Your task to perform on an android device: Show me popular games on the Play Store Image 0: 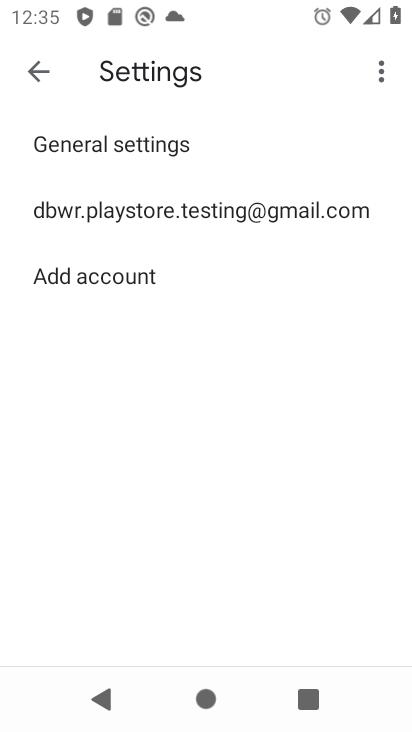
Step 0: press home button
Your task to perform on an android device: Show me popular games on the Play Store Image 1: 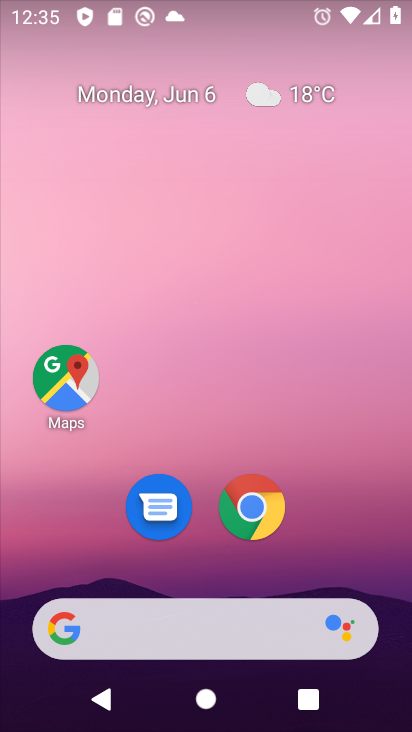
Step 1: drag from (211, 572) to (239, 29)
Your task to perform on an android device: Show me popular games on the Play Store Image 2: 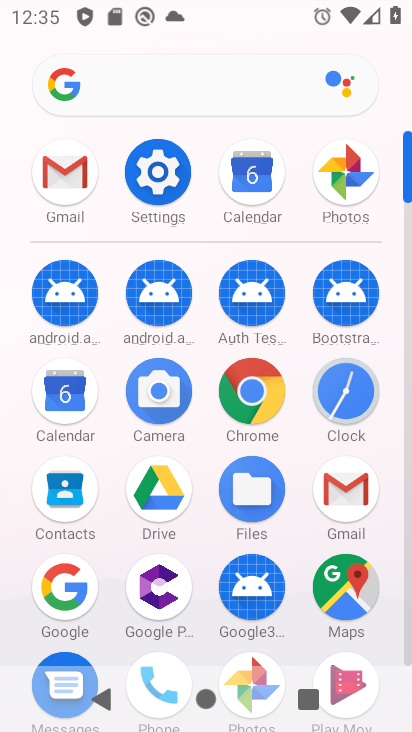
Step 2: drag from (196, 576) to (245, 265)
Your task to perform on an android device: Show me popular games on the Play Store Image 3: 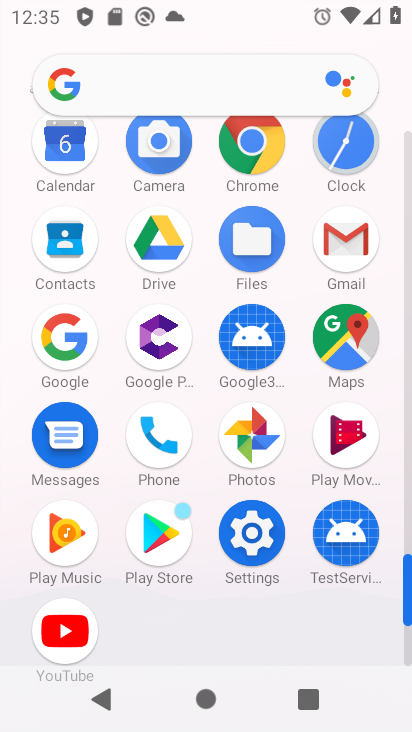
Step 3: click (162, 626)
Your task to perform on an android device: Show me popular games on the Play Store Image 4: 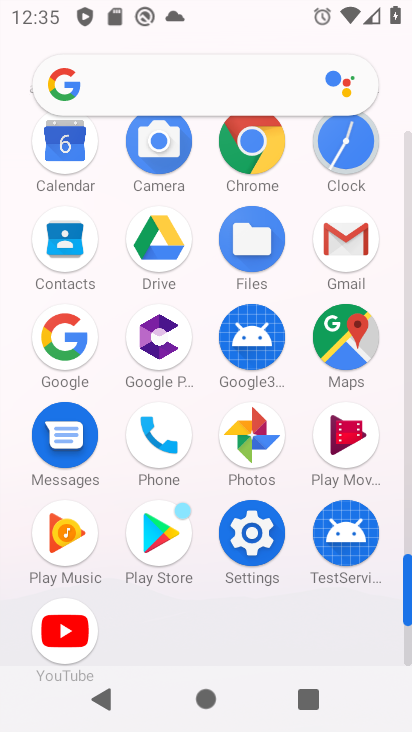
Step 4: click (166, 568)
Your task to perform on an android device: Show me popular games on the Play Store Image 5: 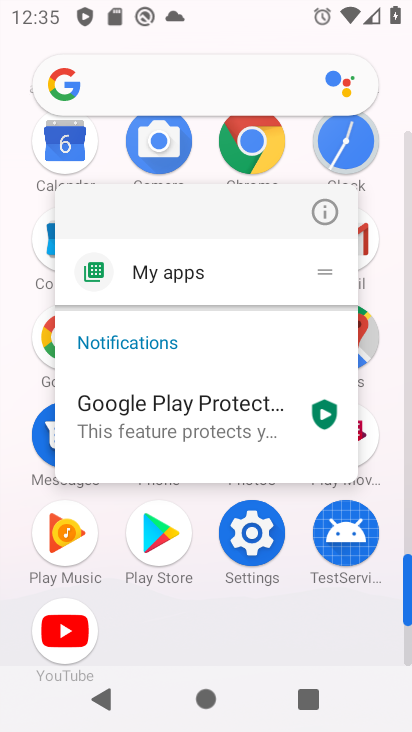
Step 5: click (166, 551)
Your task to perform on an android device: Show me popular games on the Play Store Image 6: 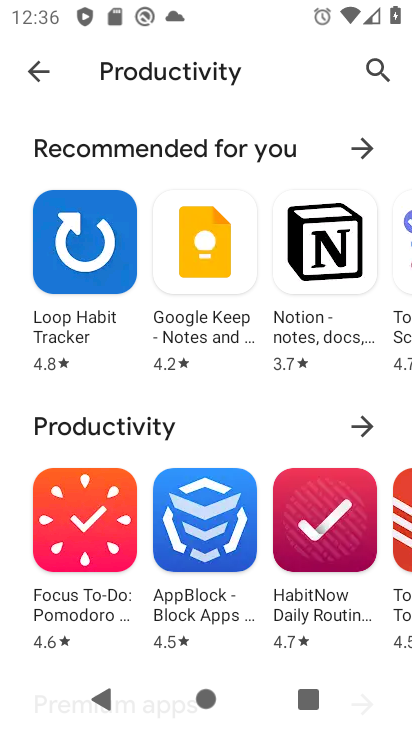
Step 6: click (27, 73)
Your task to perform on an android device: Show me popular games on the Play Store Image 7: 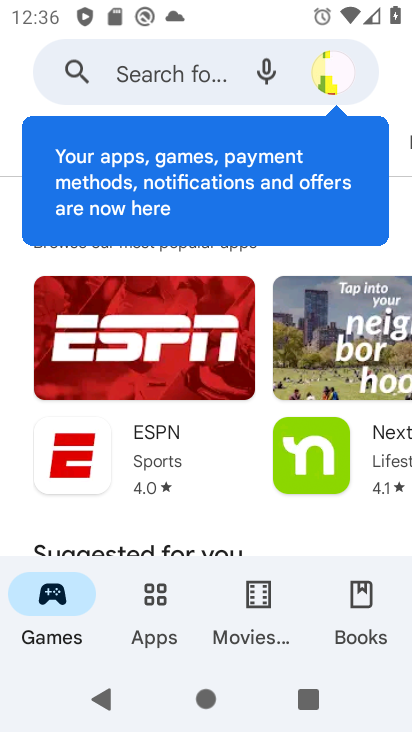
Step 7: click (13, 120)
Your task to perform on an android device: Show me popular games on the Play Store Image 8: 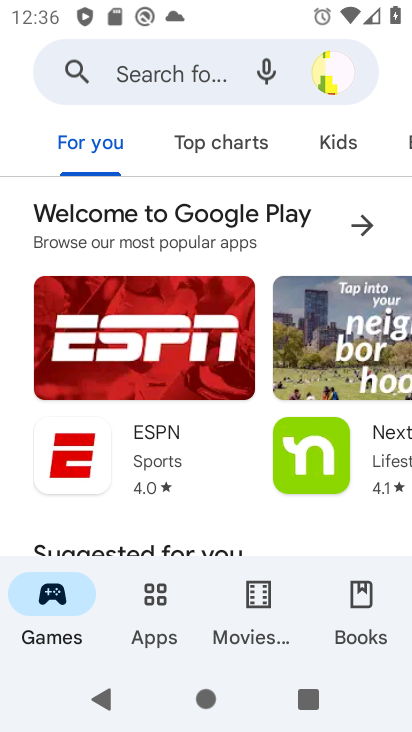
Step 8: click (230, 144)
Your task to perform on an android device: Show me popular games on the Play Store Image 9: 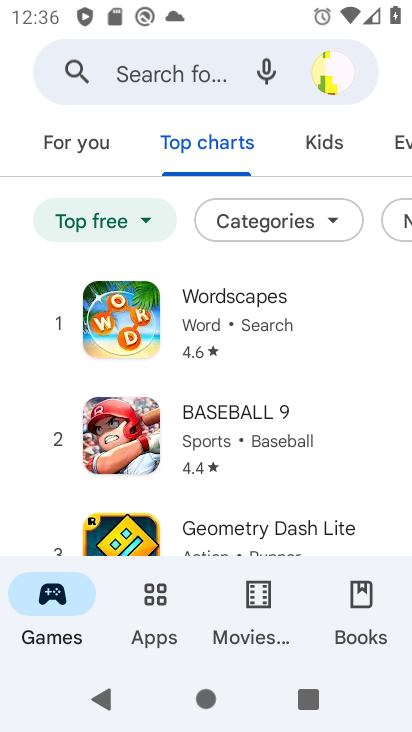
Step 9: task complete